Your task to perform on an android device: open a new tab in the chrome app Image 0: 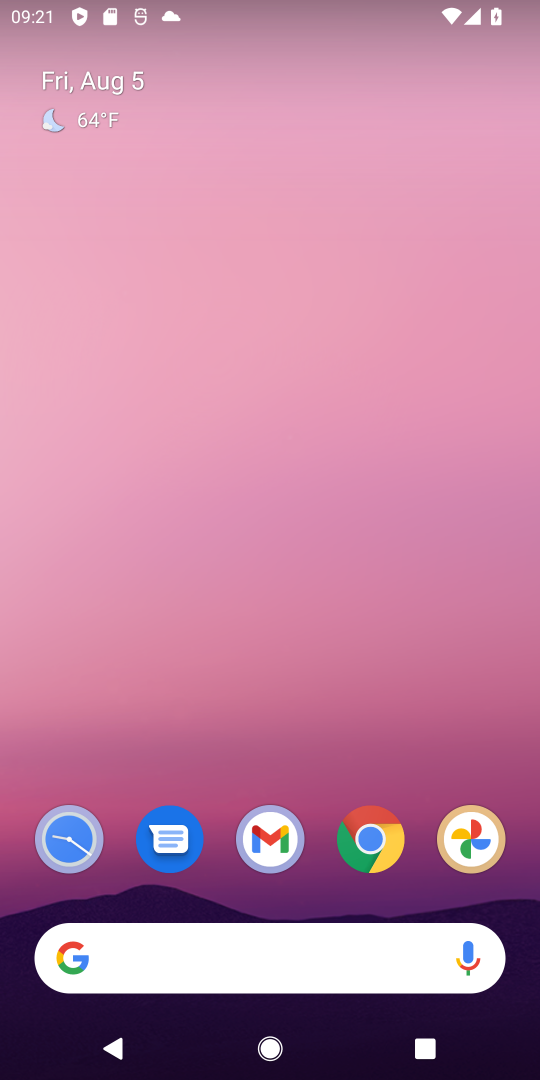
Step 0: drag from (333, 793) to (323, 159)
Your task to perform on an android device: open a new tab in the chrome app Image 1: 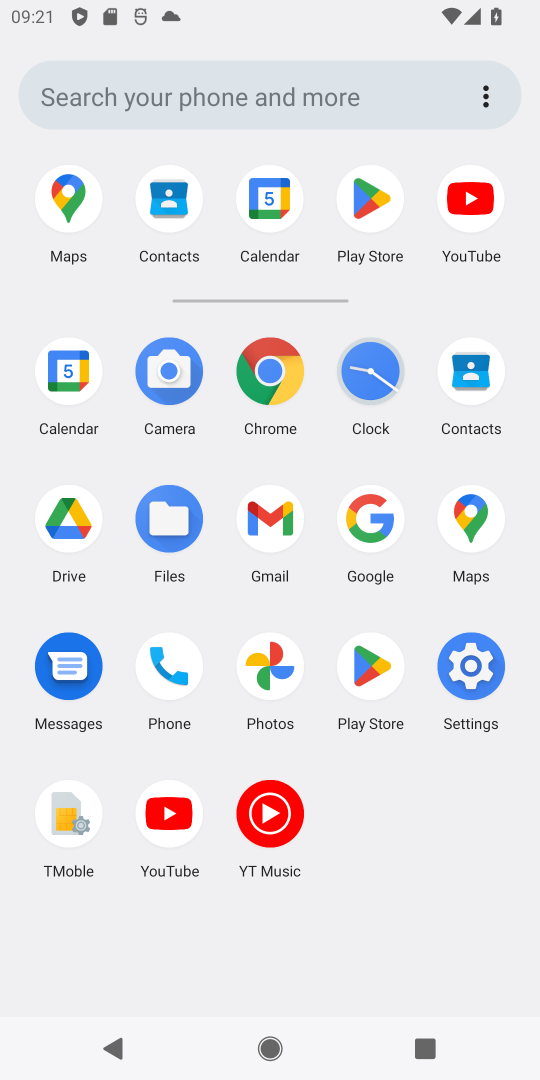
Step 1: click (267, 368)
Your task to perform on an android device: open a new tab in the chrome app Image 2: 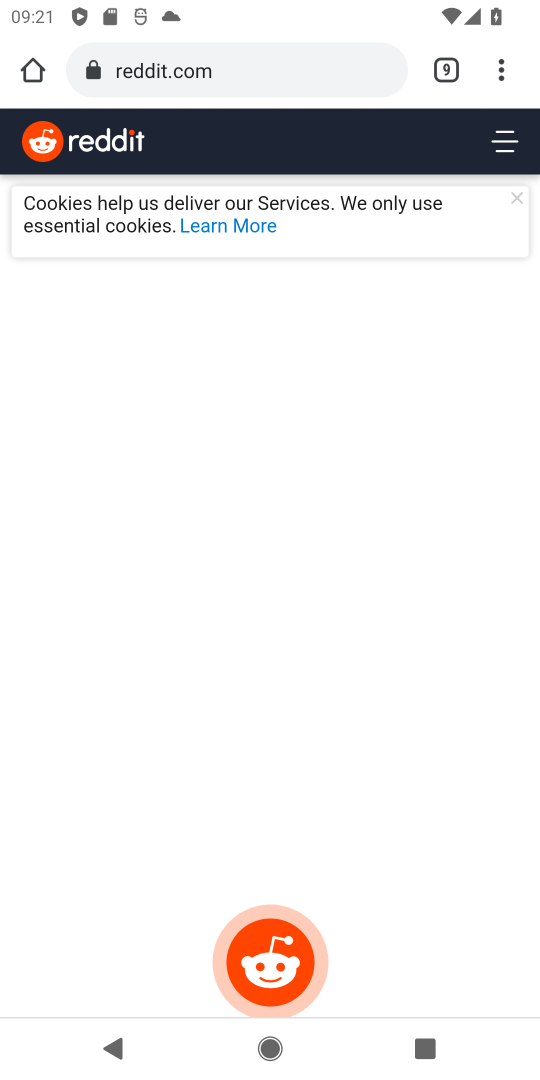
Step 2: click (499, 81)
Your task to perform on an android device: open a new tab in the chrome app Image 3: 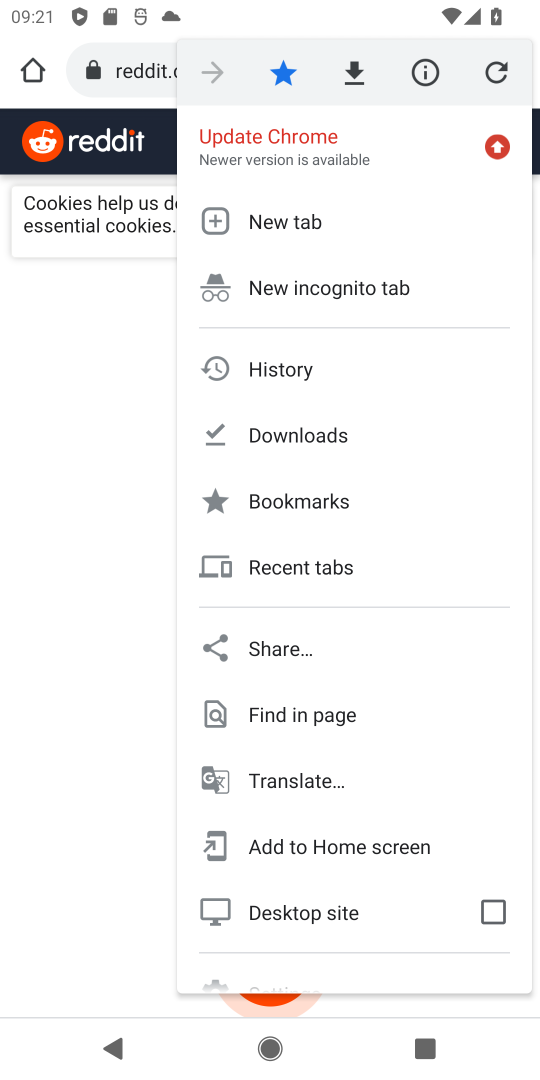
Step 3: click (280, 219)
Your task to perform on an android device: open a new tab in the chrome app Image 4: 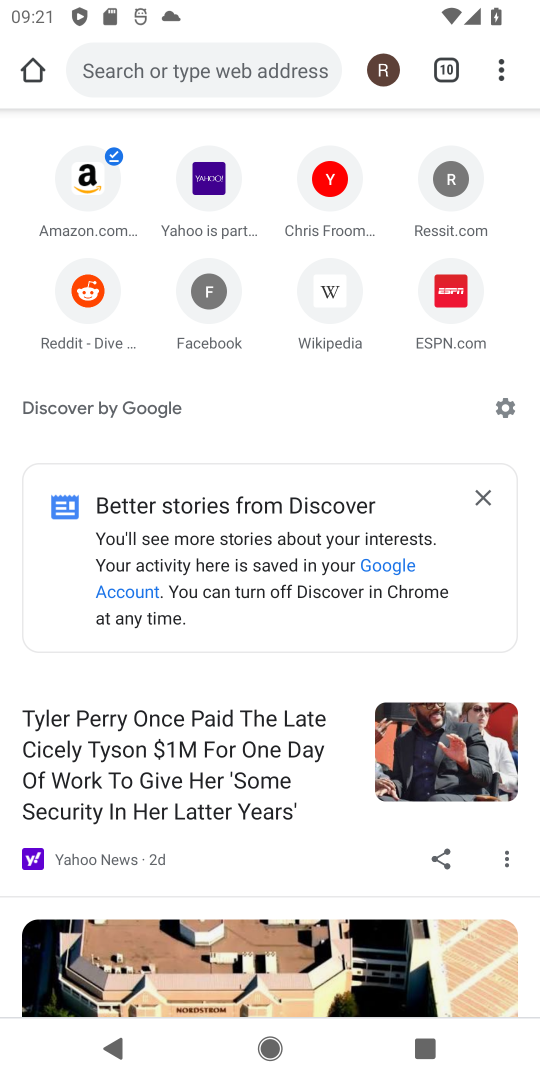
Step 4: task complete